Your task to perform on an android device: make emails show in primary in the gmail app Image 0: 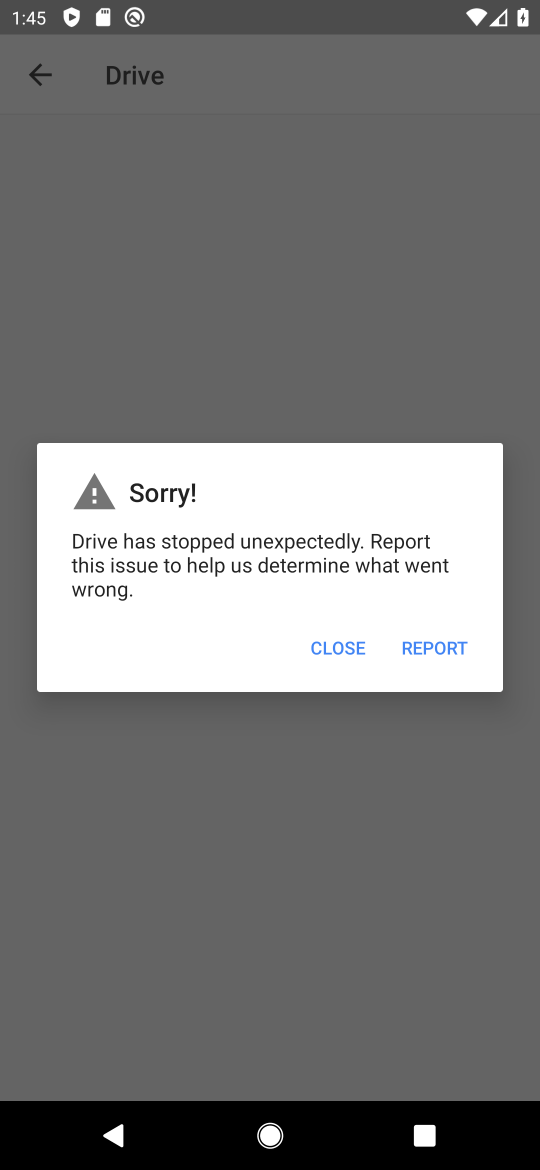
Step 0: task complete